Your task to perform on an android device: turn off priority inbox in the gmail app Image 0: 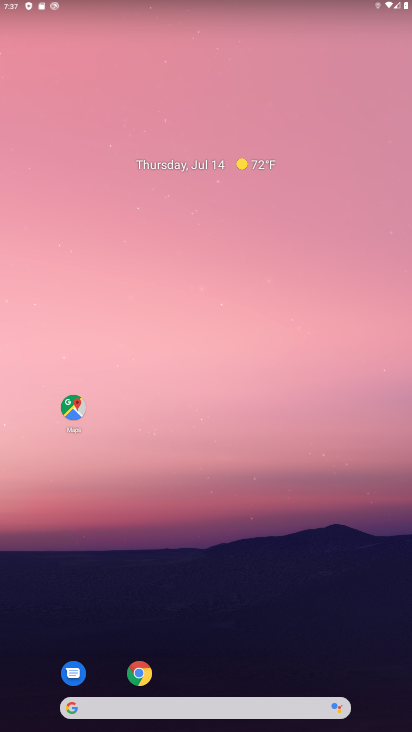
Step 0: drag from (172, 706) to (251, 345)
Your task to perform on an android device: turn off priority inbox in the gmail app Image 1: 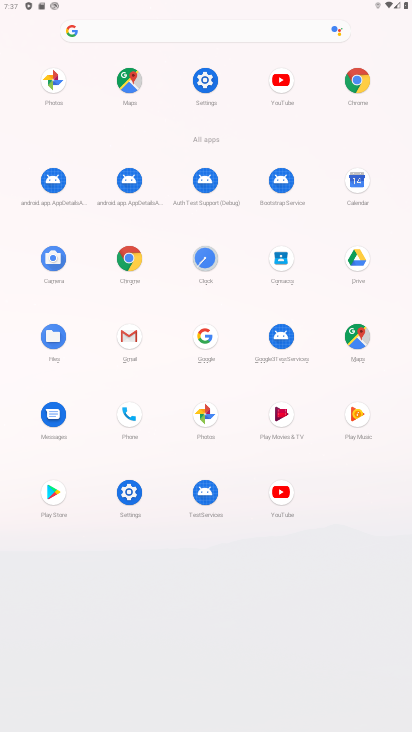
Step 1: click (136, 339)
Your task to perform on an android device: turn off priority inbox in the gmail app Image 2: 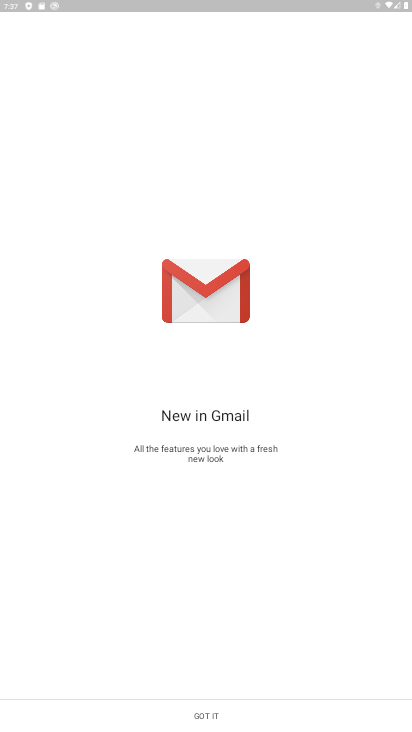
Step 2: click (201, 712)
Your task to perform on an android device: turn off priority inbox in the gmail app Image 3: 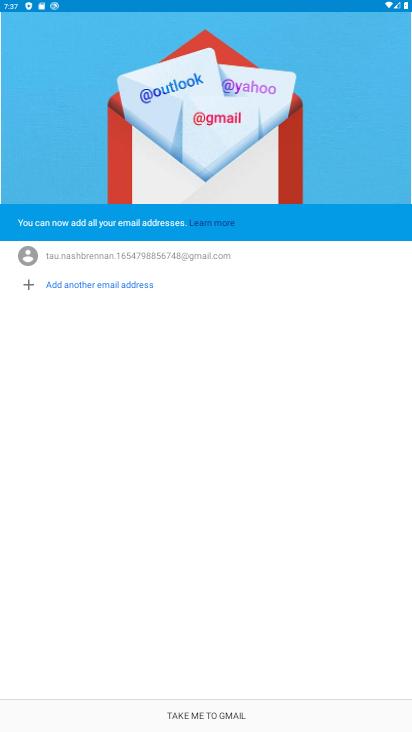
Step 3: click (199, 716)
Your task to perform on an android device: turn off priority inbox in the gmail app Image 4: 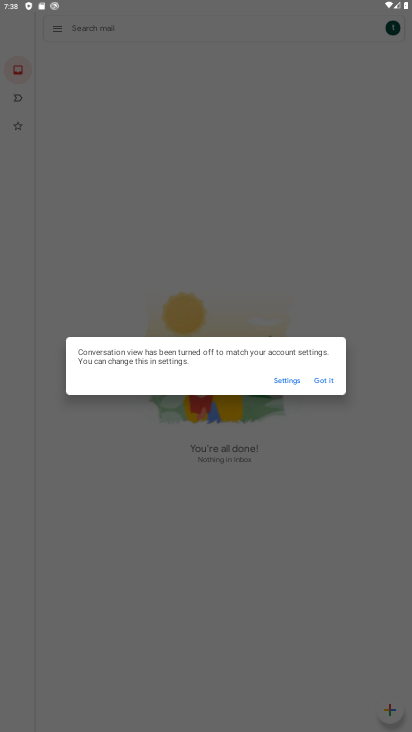
Step 4: click (323, 384)
Your task to perform on an android device: turn off priority inbox in the gmail app Image 5: 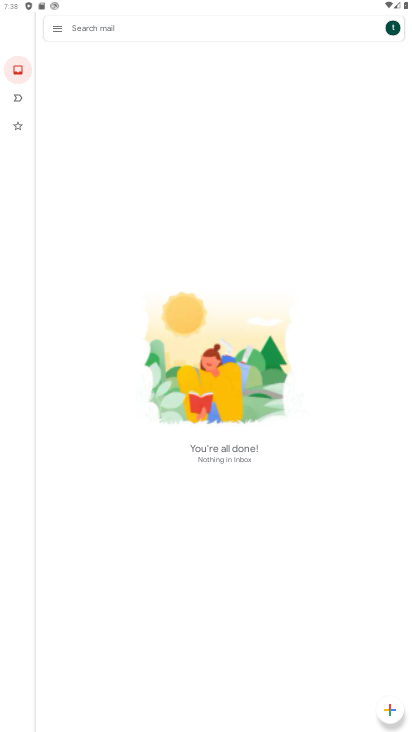
Step 5: click (53, 33)
Your task to perform on an android device: turn off priority inbox in the gmail app Image 6: 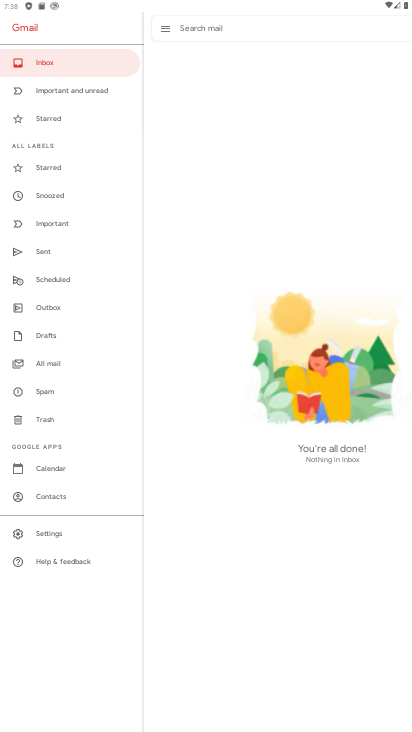
Step 6: click (52, 539)
Your task to perform on an android device: turn off priority inbox in the gmail app Image 7: 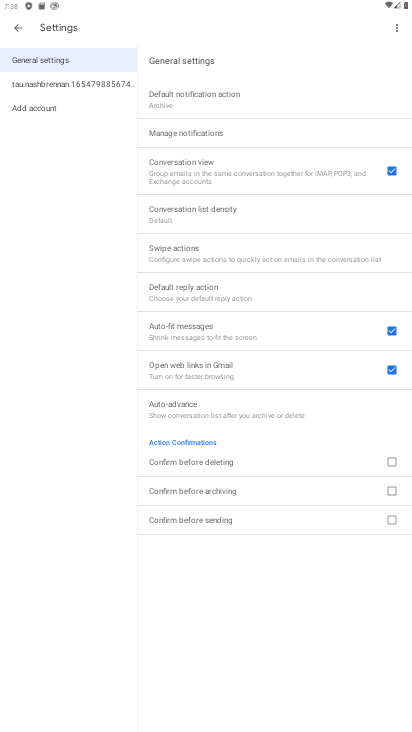
Step 7: click (52, 532)
Your task to perform on an android device: turn off priority inbox in the gmail app Image 8: 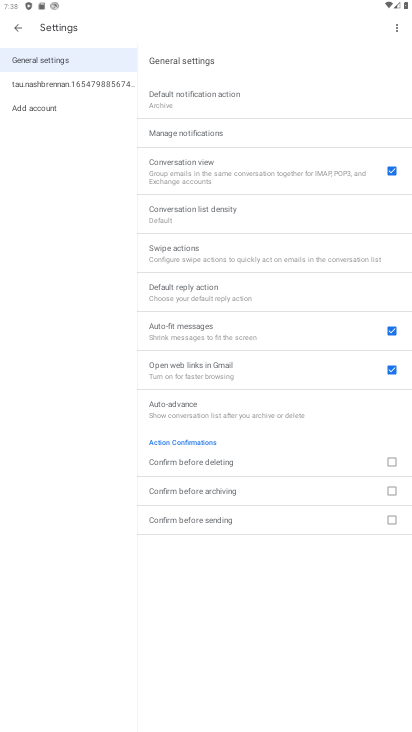
Step 8: click (104, 85)
Your task to perform on an android device: turn off priority inbox in the gmail app Image 9: 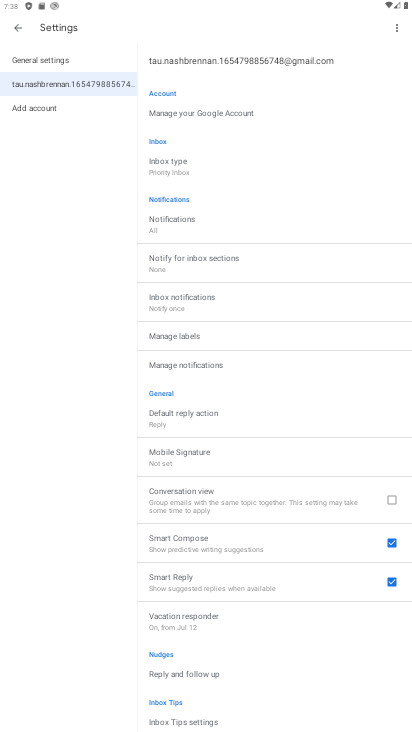
Step 9: click (169, 169)
Your task to perform on an android device: turn off priority inbox in the gmail app Image 10: 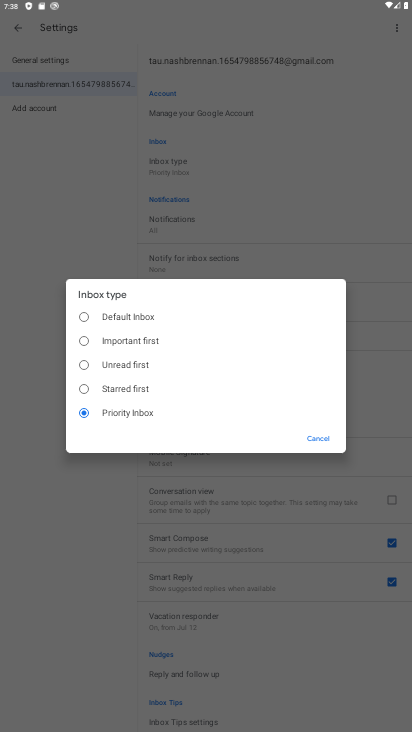
Step 10: click (119, 343)
Your task to perform on an android device: turn off priority inbox in the gmail app Image 11: 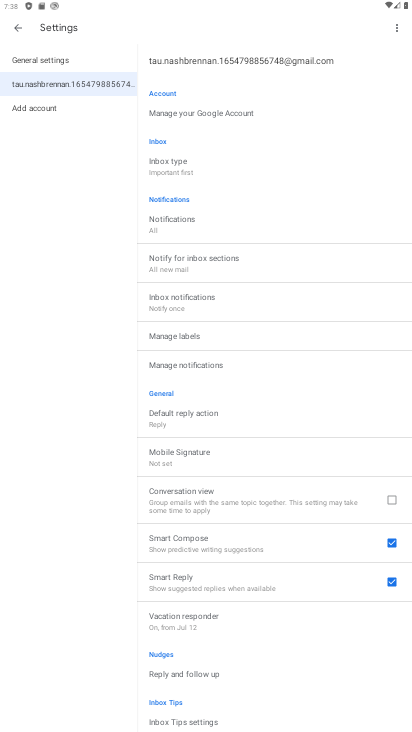
Step 11: task complete